Your task to perform on an android device: Show me productivity apps on the Play Store Image 0: 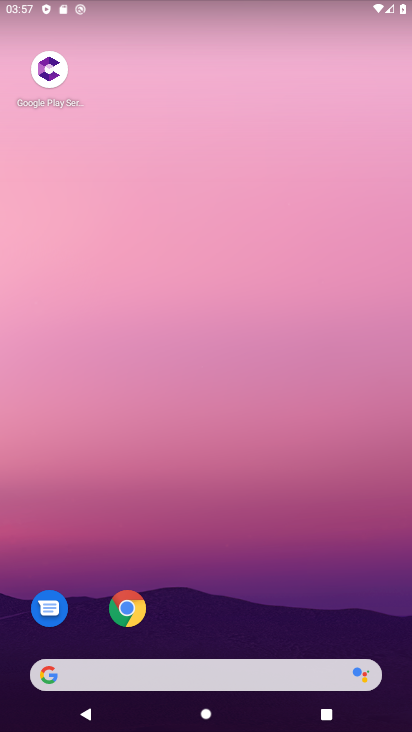
Step 0: drag from (225, 662) to (336, 81)
Your task to perform on an android device: Show me productivity apps on the Play Store Image 1: 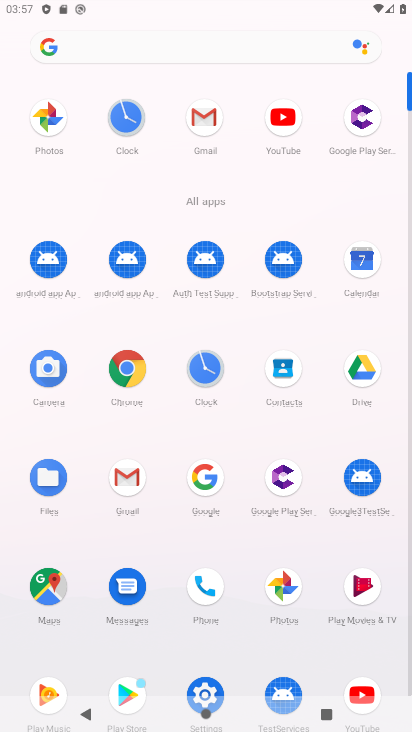
Step 1: click (139, 683)
Your task to perform on an android device: Show me productivity apps on the Play Store Image 2: 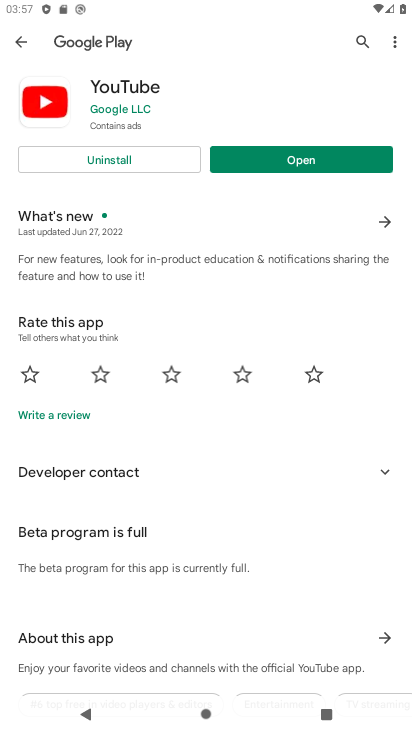
Step 2: drag from (142, 661) to (209, 329)
Your task to perform on an android device: Show me productivity apps on the Play Store Image 3: 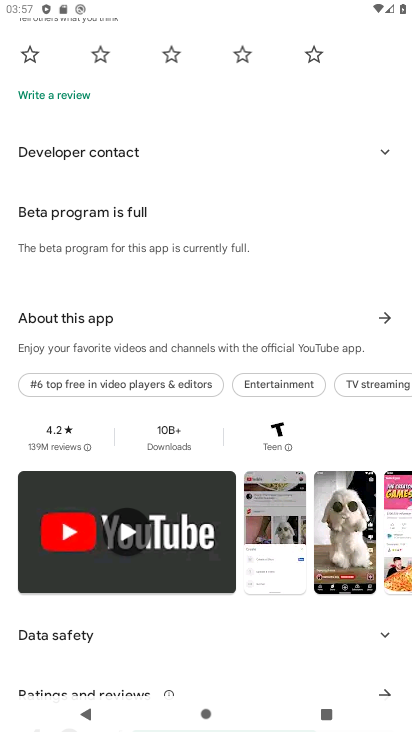
Step 3: press back button
Your task to perform on an android device: Show me productivity apps on the Play Store Image 4: 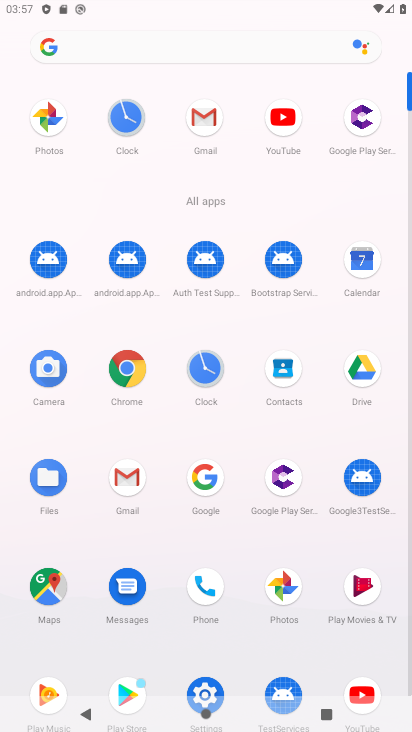
Step 4: click (139, 681)
Your task to perform on an android device: Show me productivity apps on the Play Store Image 5: 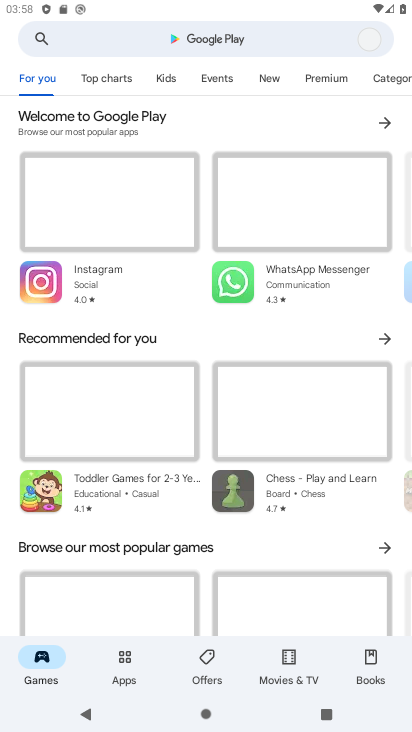
Step 5: click (137, 671)
Your task to perform on an android device: Show me productivity apps on the Play Store Image 6: 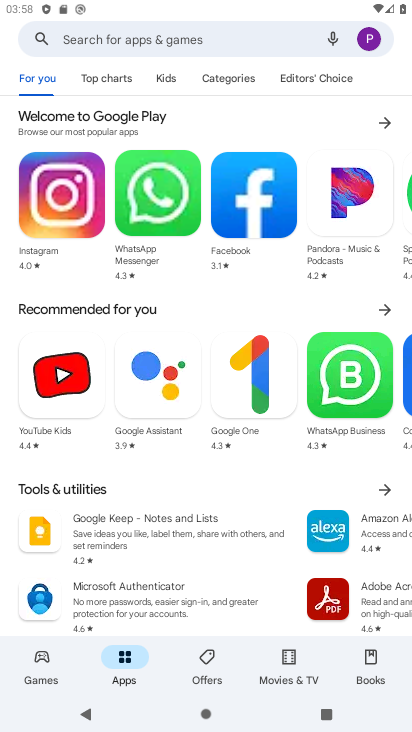
Step 6: click (231, 77)
Your task to perform on an android device: Show me productivity apps on the Play Store Image 7: 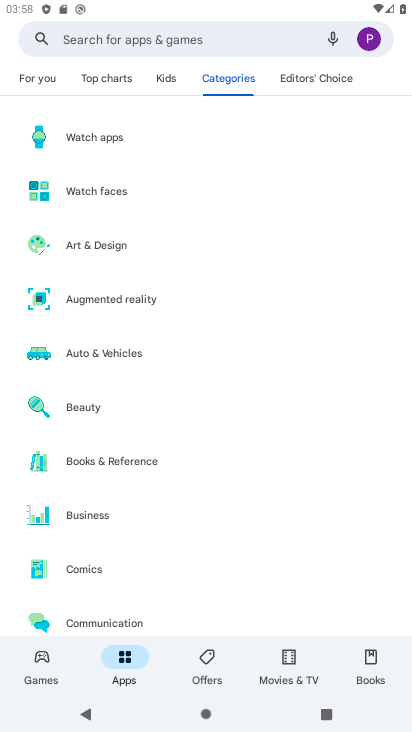
Step 7: drag from (160, 541) to (247, 175)
Your task to perform on an android device: Show me productivity apps on the Play Store Image 8: 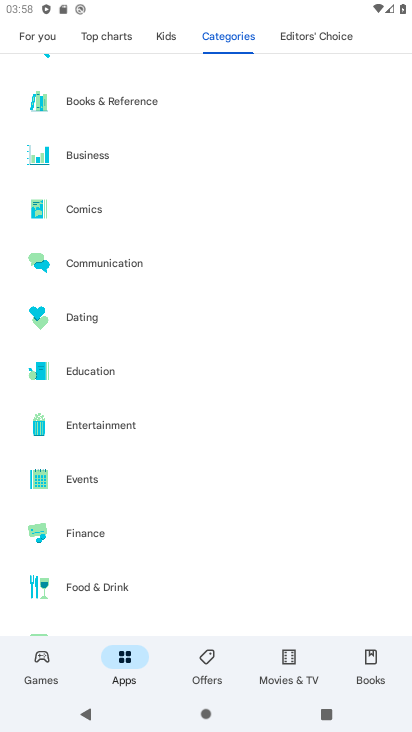
Step 8: drag from (103, 554) to (238, 43)
Your task to perform on an android device: Show me productivity apps on the Play Store Image 9: 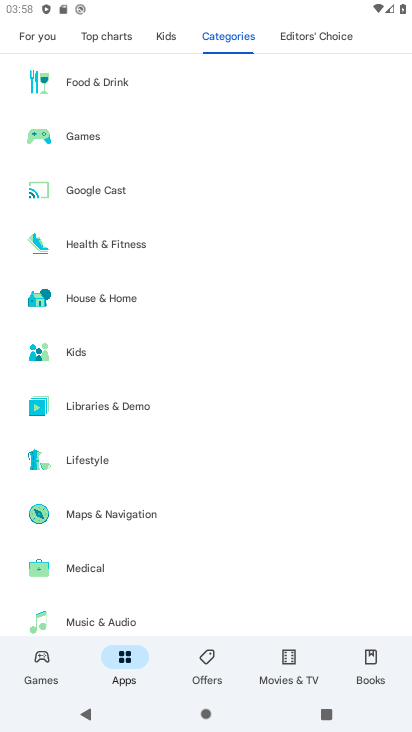
Step 9: drag from (140, 522) to (231, 195)
Your task to perform on an android device: Show me productivity apps on the Play Store Image 10: 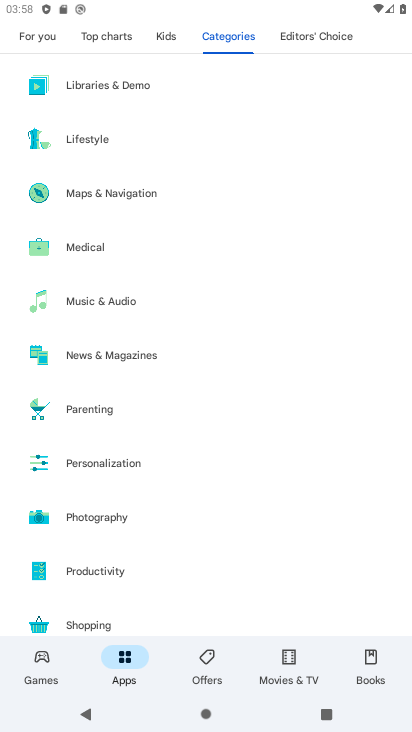
Step 10: click (131, 577)
Your task to perform on an android device: Show me productivity apps on the Play Store Image 11: 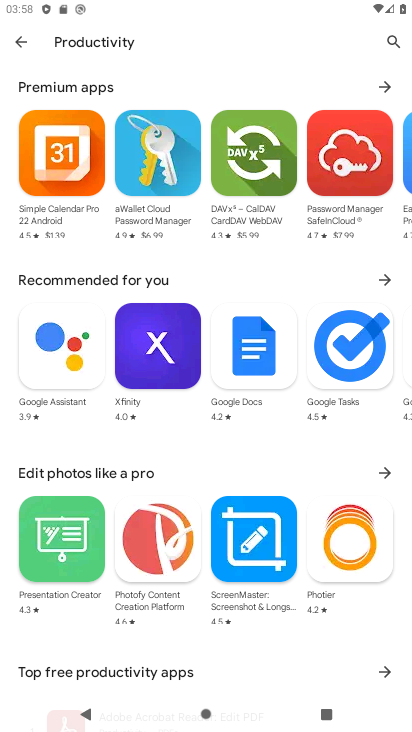
Step 11: task complete